Your task to perform on an android device: choose inbox layout in the gmail app Image 0: 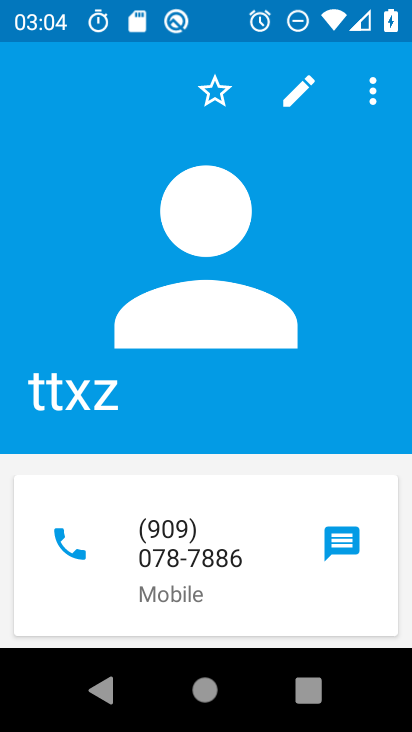
Step 0: press home button
Your task to perform on an android device: choose inbox layout in the gmail app Image 1: 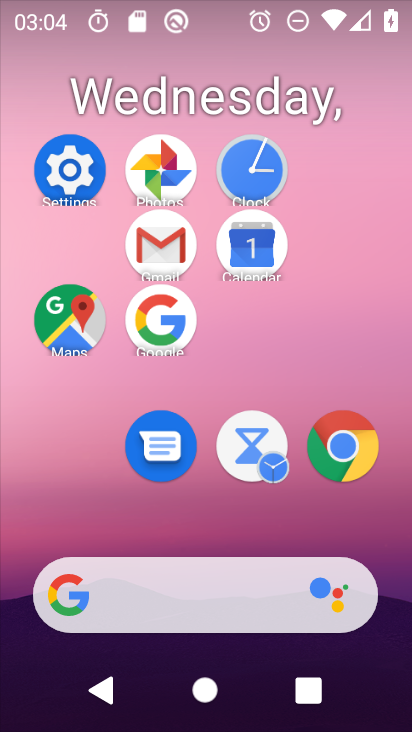
Step 1: click (173, 260)
Your task to perform on an android device: choose inbox layout in the gmail app Image 2: 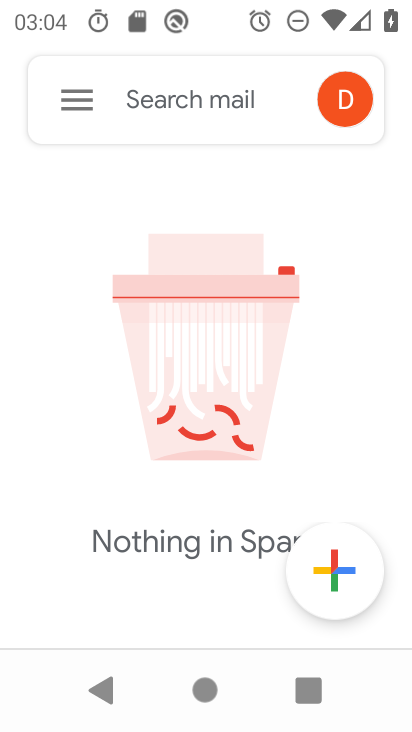
Step 2: click (67, 133)
Your task to perform on an android device: choose inbox layout in the gmail app Image 3: 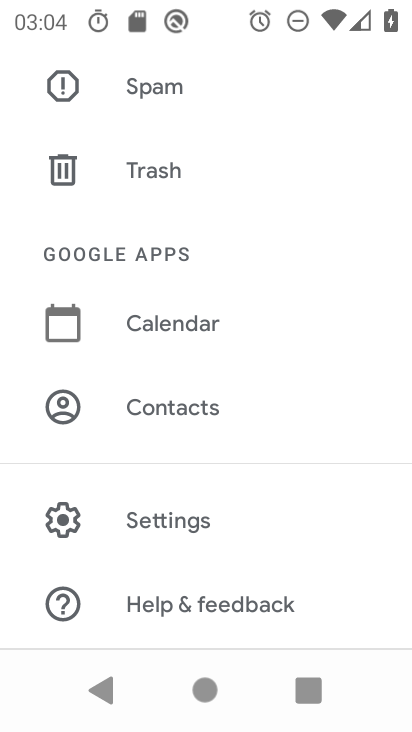
Step 3: click (132, 488)
Your task to perform on an android device: choose inbox layout in the gmail app Image 4: 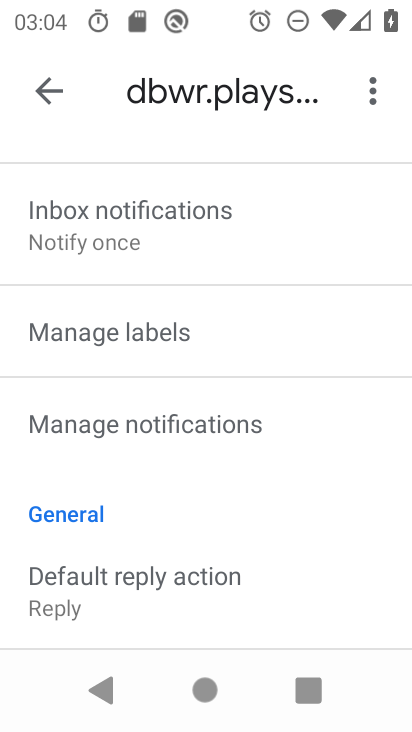
Step 4: drag from (279, 217) to (243, 544)
Your task to perform on an android device: choose inbox layout in the gmail app Image 5: 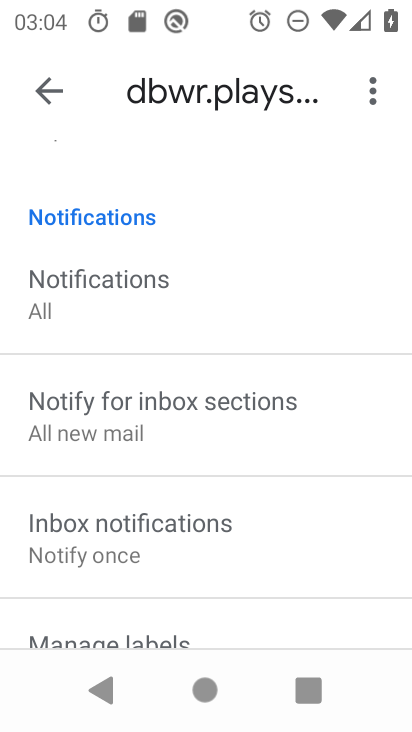
Step 5: drag from (305, 253) to (278, 531)
Your task to perform on an android device: choose inbox layout in the gmail app Image 6: 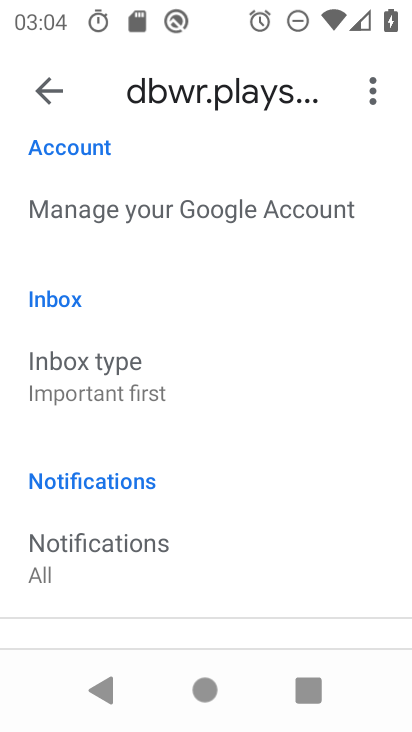
Step 6: click (202, 393)
Your task to perform on an android device: choose inbox layout in the gmail app Image 7: 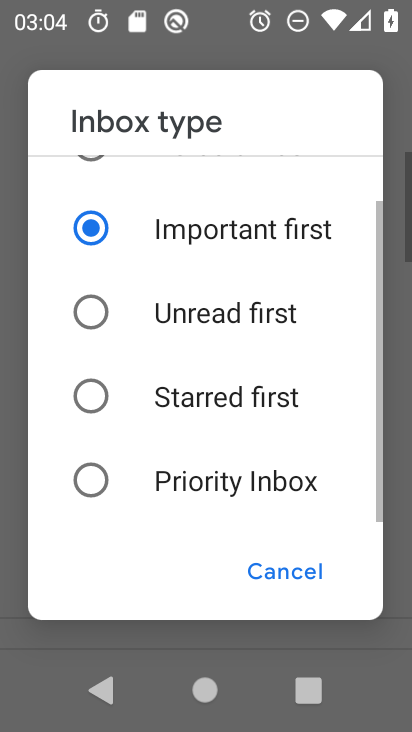
Step 7: task complete